Your task to perform on an android device: see tabs open on other devices in the chrome app Image 0: 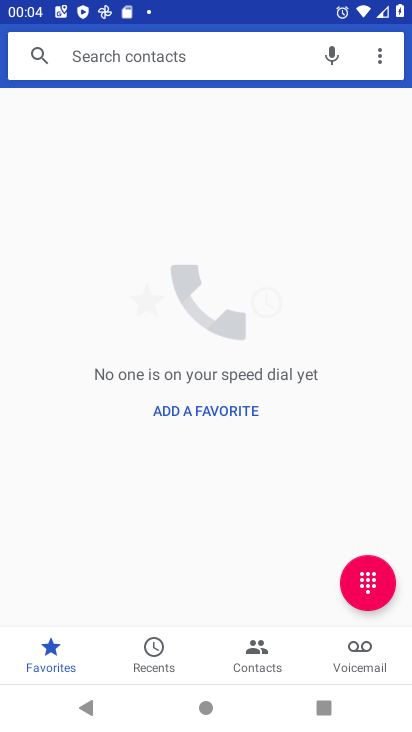
Step 0: press home button
Your task to perform on an android device: see tabs open on other devices in the chrome app Image 1: 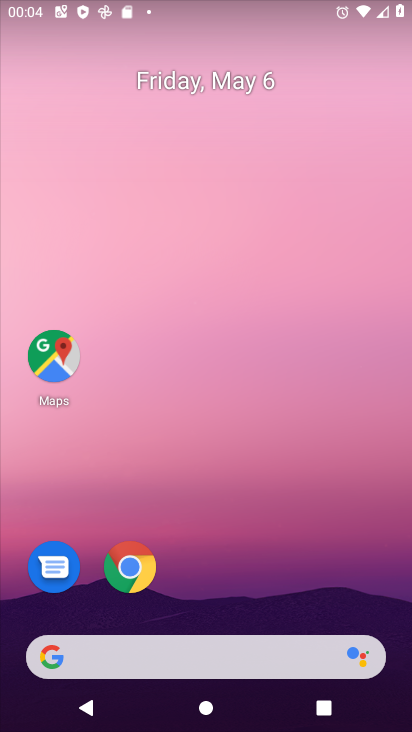
Step 1: click (136, 567)
Your task to perform on an android device: see tabs open on other devices in the chrome app Image 2: 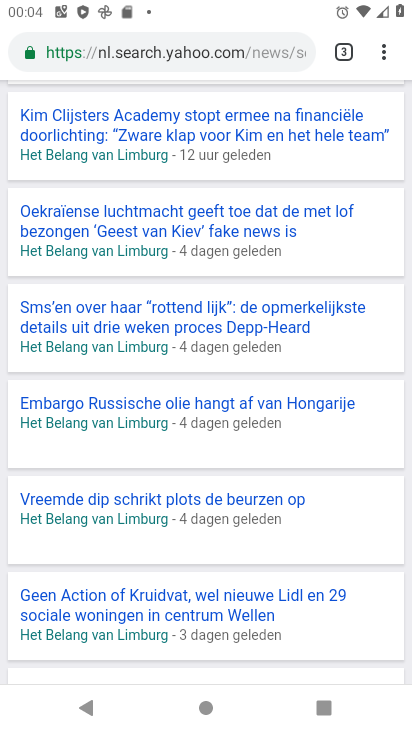
Step 2: click (337, 55)
Your task to perform on an android device: see tabs open on other devices in the chrome app Image 3: 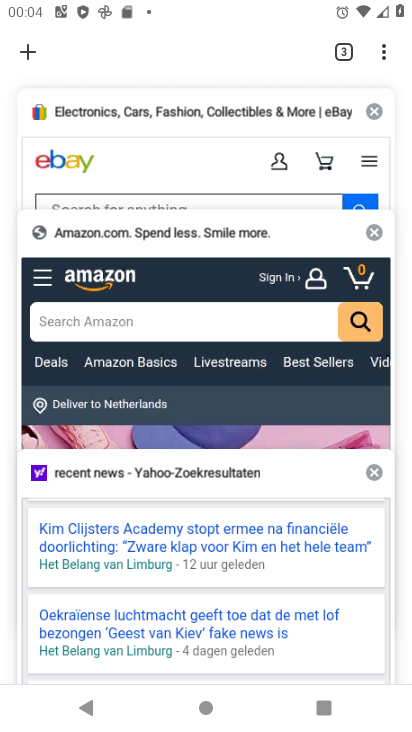
Step 3: click (376, 45)
Your task to perform on an android device: see tabs open on other devices in the chrome app Image 4: 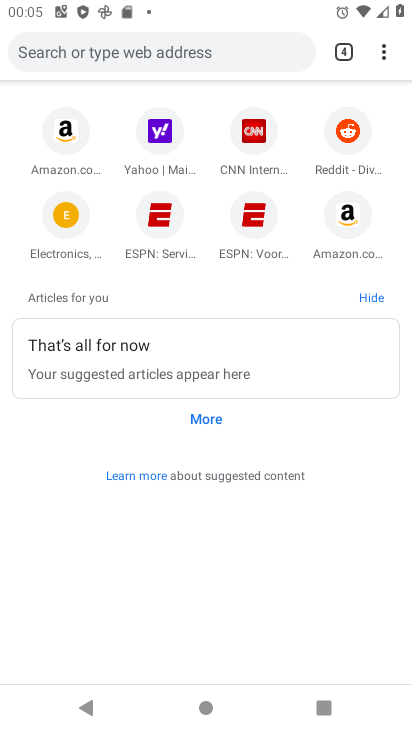
Step 4: task complete